Your task to perform on an android device: change the clock display to analog Image 0: 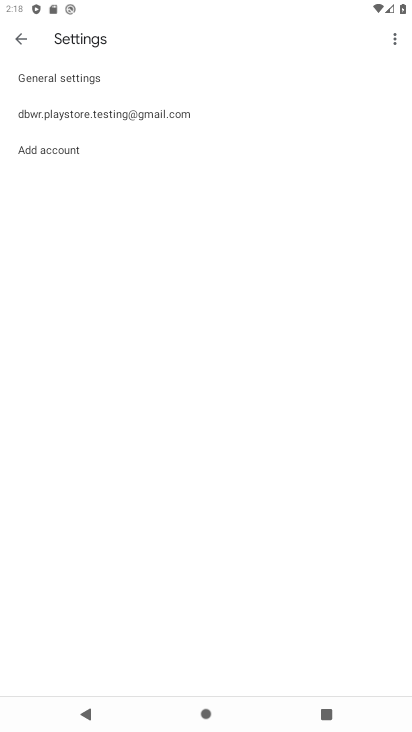
Step 0: press home button
Your task to perform on an android device: change the clock display to analog Image 1: 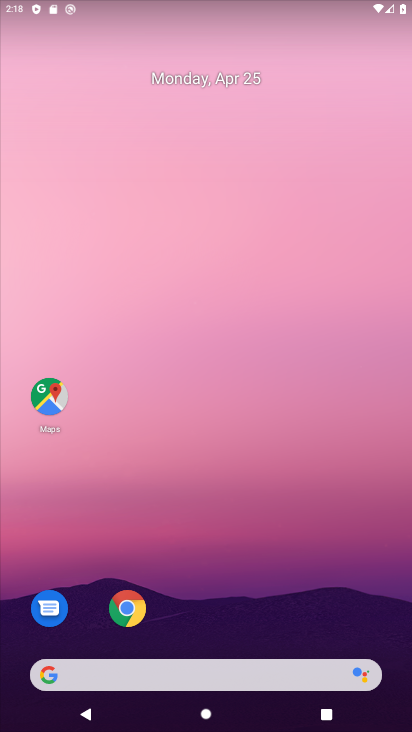
Step 1: drag from (367, 593) to (370, 147)
Your task to perform on an android device: change the clock display to analog Image 2: 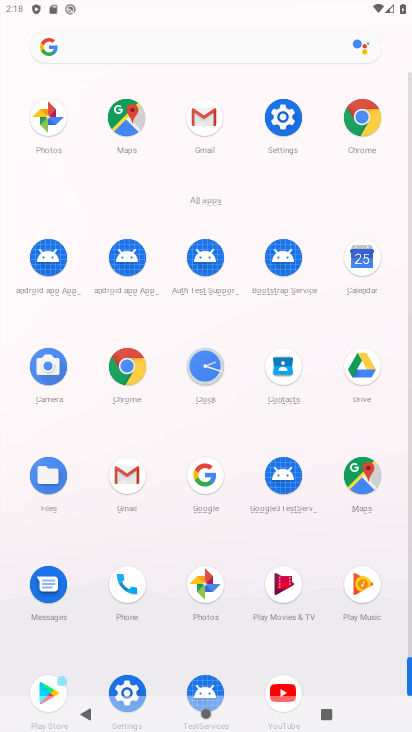
Step 2: click (207, 367)
Your task to perform on an android device: change the clock display to analog Image 3: 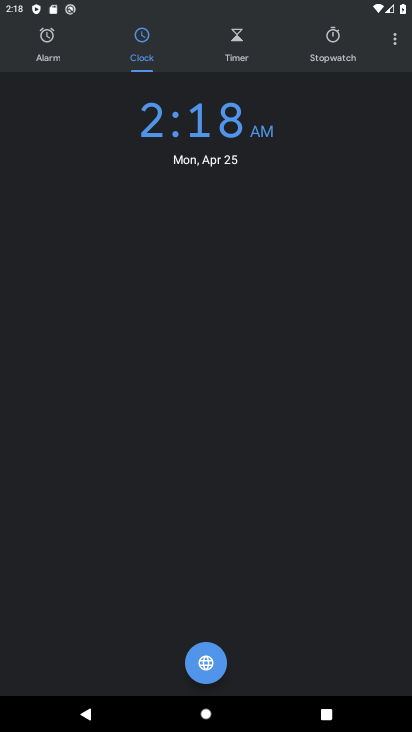
Step 3: click (395, 44)
Your task to perform on an android device: change the clock display to analog Image 4: 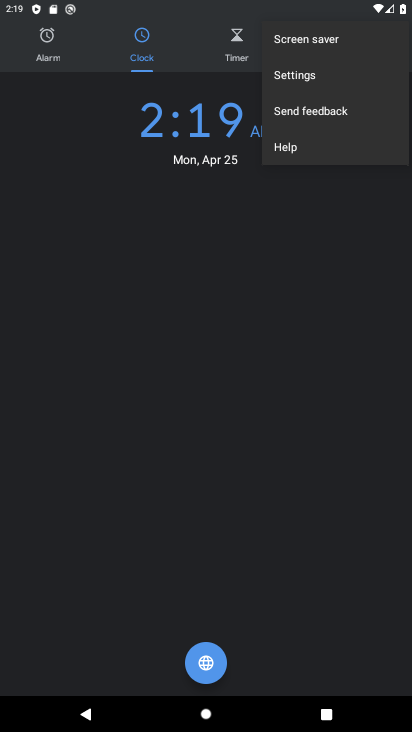
Step 4: click (322, 70)
Your task to perform on an android device: change the clock display to analog Image 5: 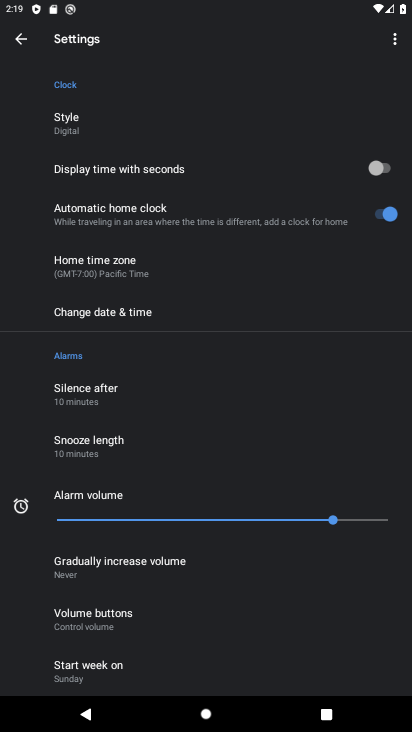
Step 5: drag from (260, 575) to (263, 435)
Your task to perform on an android device: change the clock display to analog Image 6: 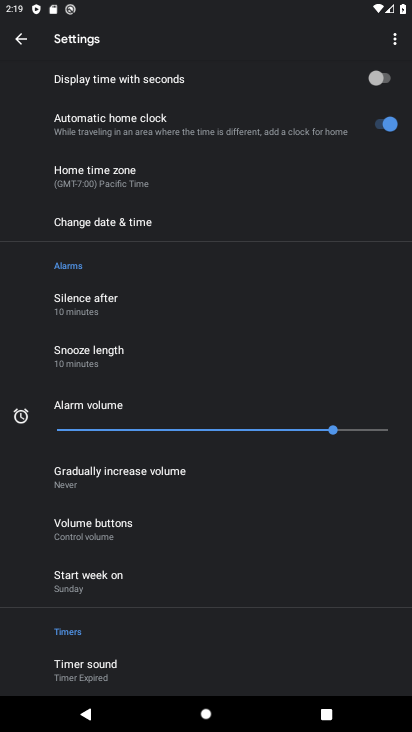
Step 6: drag from (283, 597) to (287, 503)
Your task to perform on an android device: change the clock display to analog Image 7: 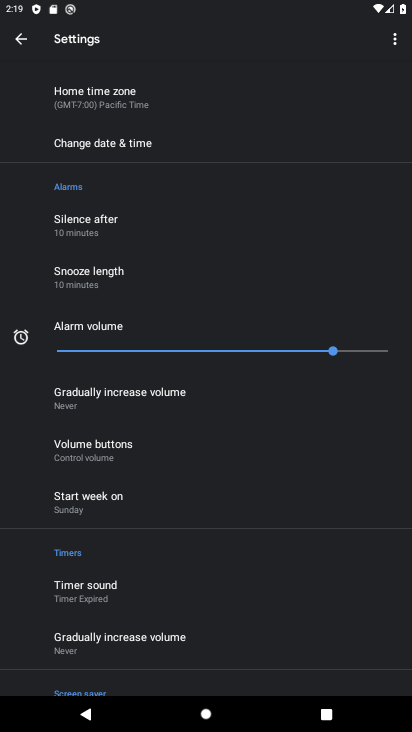
Step 7: drag from (275, 240) to (277, 376)
Your task to perform on an android device: change the clock display to analog Image 8: 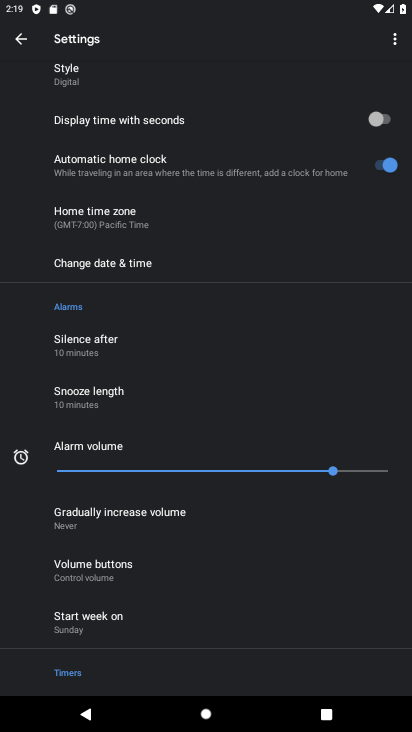
Step 8: drag from (274, 292) to (274, 389)
Your task to perform on an android device: change the clock display to analog Image 9: 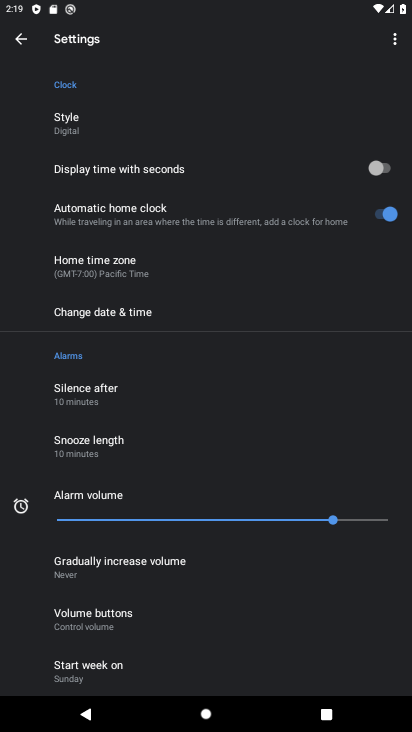
Step 9: drag from (280, 299) to (280, 370)
Your task to perform on an android device: change the clock display to analog Image 10: 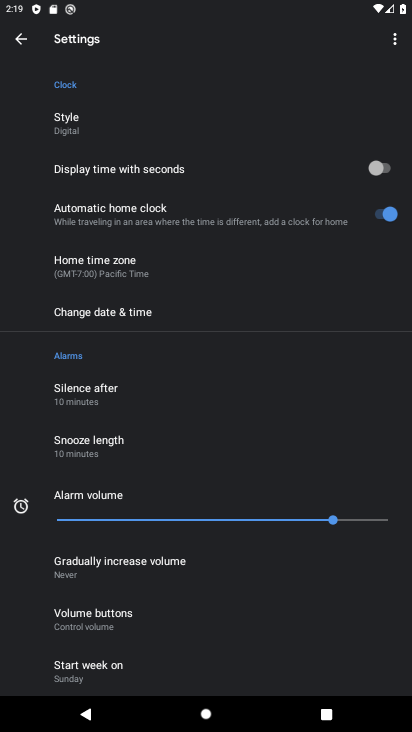
Step 10: click (285, 355)
Your task to perform on an android device: change the clock display to analog Image 11: 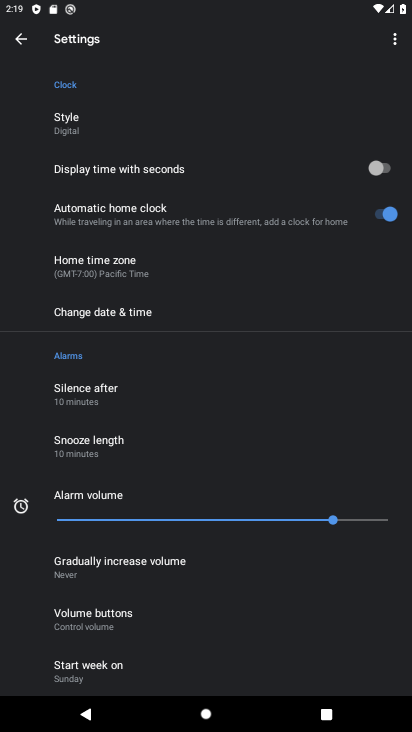
Step 11: drag from (309, 93) to (334, 240)
Your task to perform on an android device: change the clock display to analog Image 12: 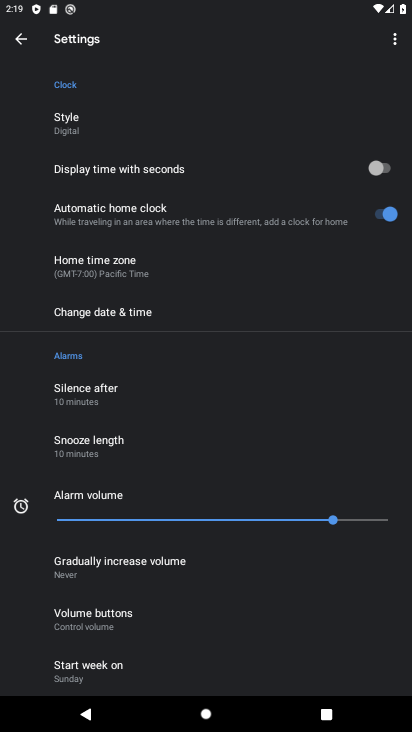
Step 12: click (82, 111)
Your task to perform on an android device: change the clock display to analog Image 13: 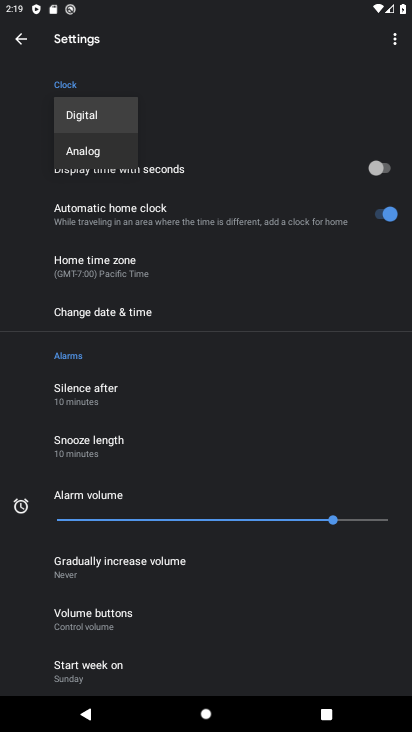
Step 13: click (116, 155)
Your task to perform on an android device: change the clock display to analog Image 14: 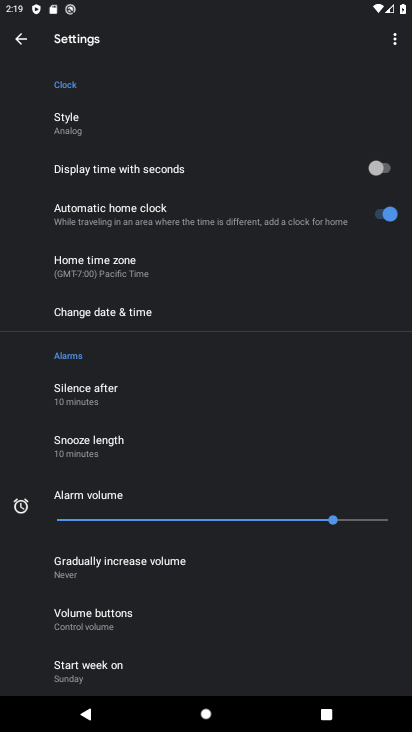
Step 14: task complete